Your task to perform on an android device: turn off notifications settings in the gmail app Image 0: 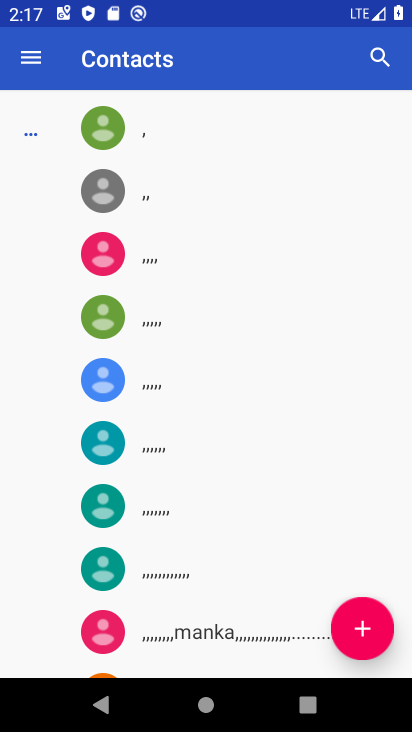
Step 0: press home button
Your task to perform on an android device: turn off notifications settings in the gmail app Image 1: 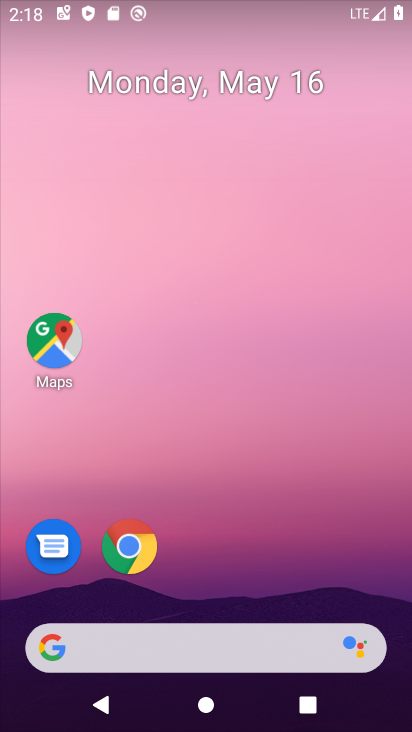
Step 1: drag from (247, 553) to (369, 133)
Your task to perform on an android device: turn off notifications settings in the gmail app Image 2: 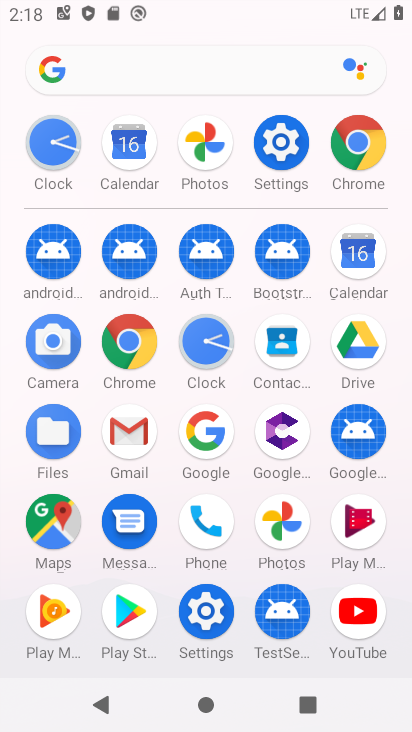
Step 2: click (129, 443)
Your task to perform on an android device: turn off notifications settings in the gmail app Image 3: 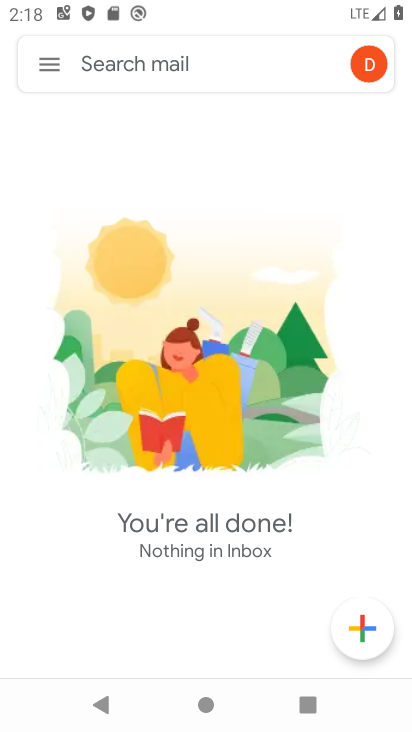
Step 3: click (59, 69)
Your task to perform on an android device: turn off notifications settings in the gmail app Image 4: 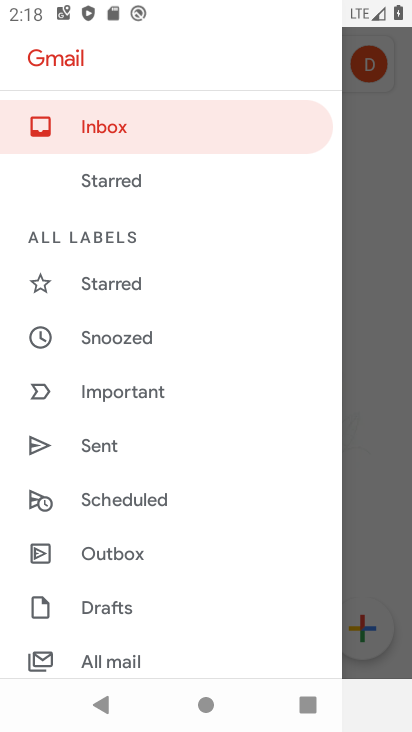
Step 4: drag from (116, 527) to (157, 372)
Your task to perform on an android device: turn off notifications settings in the gmail app Image 5: 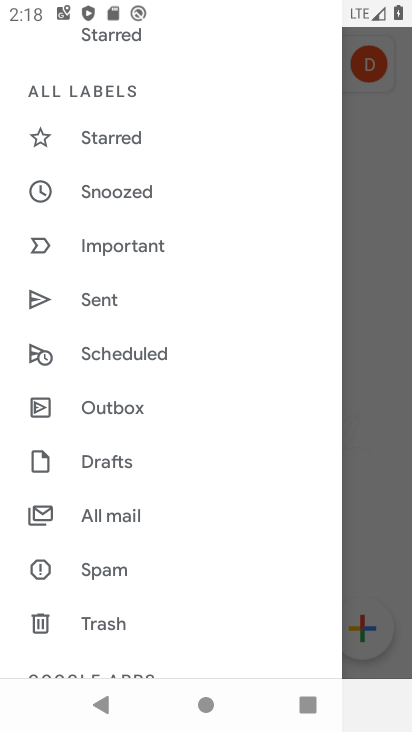
Step 5: drag from (149, 508) to (211, 347)
Your task to perform on an android device: turn off notifications settings in the gmail app Image 6: 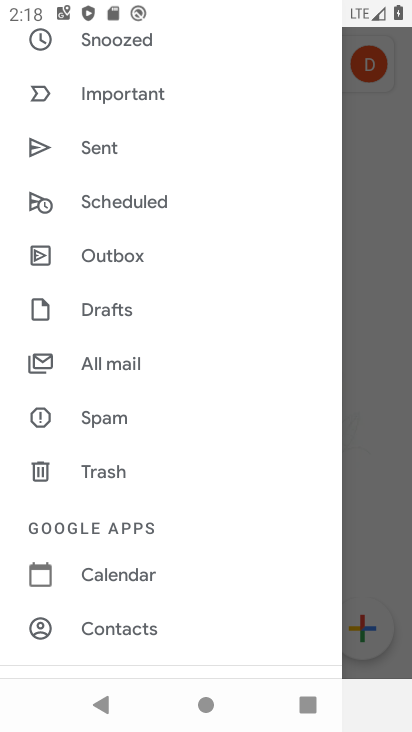
Step 6: drag from (128, 556) to (167, 456)
Your task to perform on an android device: turn off notifications settings in the gmail app Image 7: 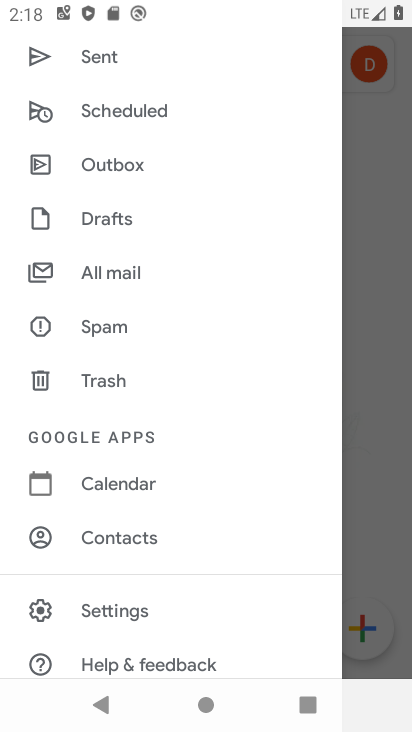
Step 7: click (118, 597)
Your task to perform on an android device: turn off notifications settings in the gmail app Image 8: 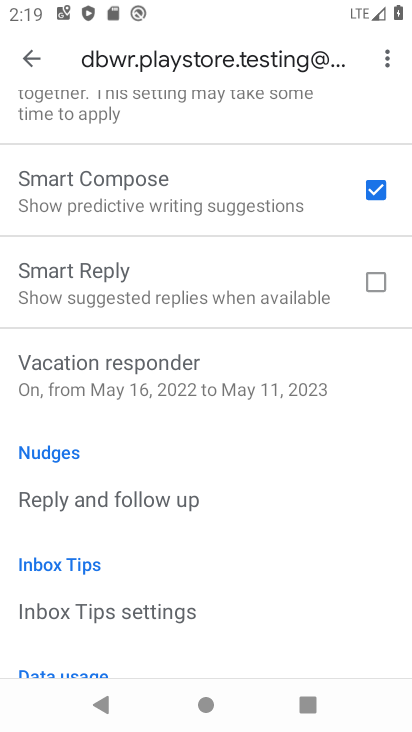
Step 8: drag from (182, 560) to (170, 651)
Your task to perform on an android device: turn off notifications settings in the gmail app Image 9: 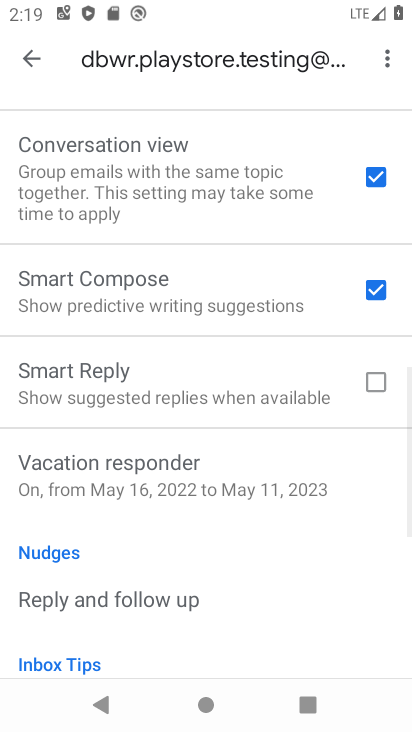
Step 9: drag from (130, 247) to (134, 508)
Your task to perform on an android device: turn off notifications settings in the gmail app Image 10: 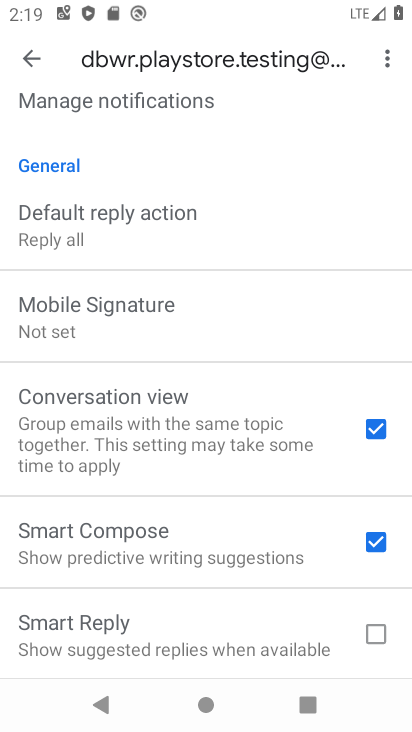
Step 10: drag from (108, 287) to (83, 419)
Your task to perform on an android device: turn off notifications settings in the gmail app Image 11: 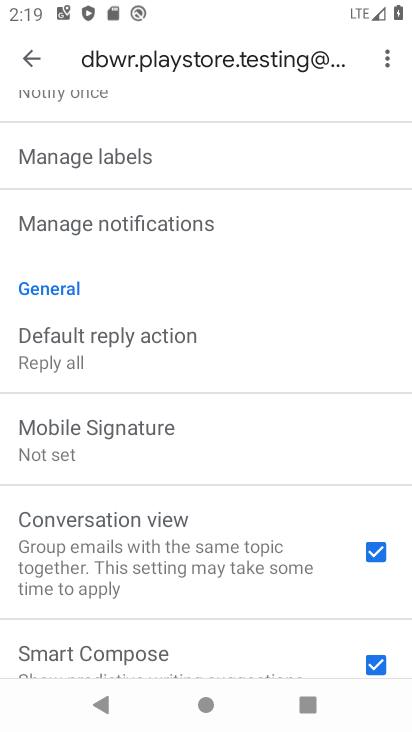
Step 11: drag from (128, 373) to (101, 508)
Your task to perform on an android device: turn off notifications settings in the gmail app Image 12: 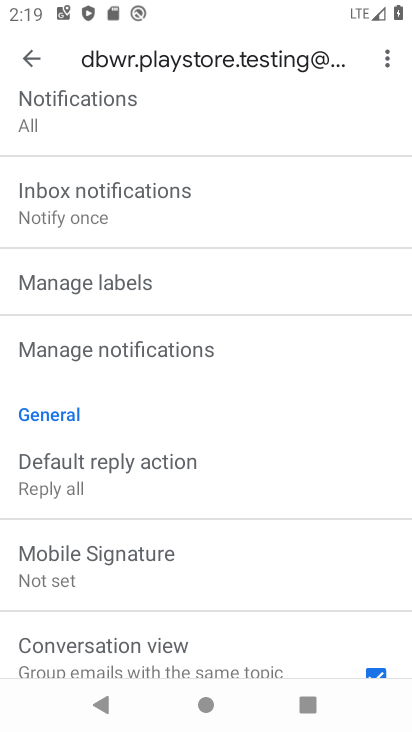
Step 12: click (106, 206)
Your task to perform on an android device: turn off notifications settings in the gmail app Image 13: 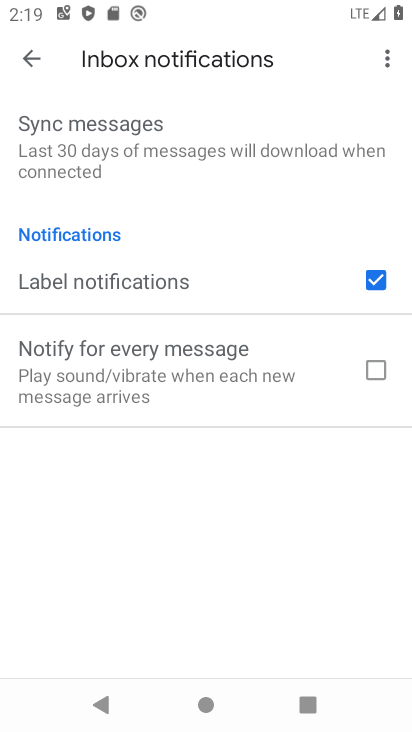
Step 13: task complete